Your task to perform on an android device: Toggle the flashlight Image 0: 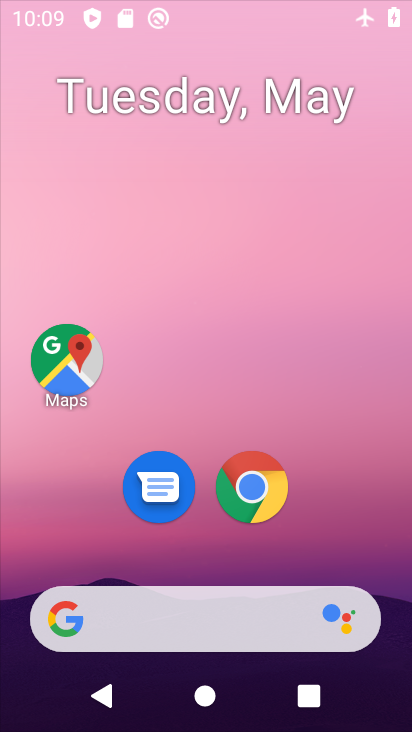
Step 0: click (211, 218)
Your task to perform on an android device: Toggle the flashlight Image 1: 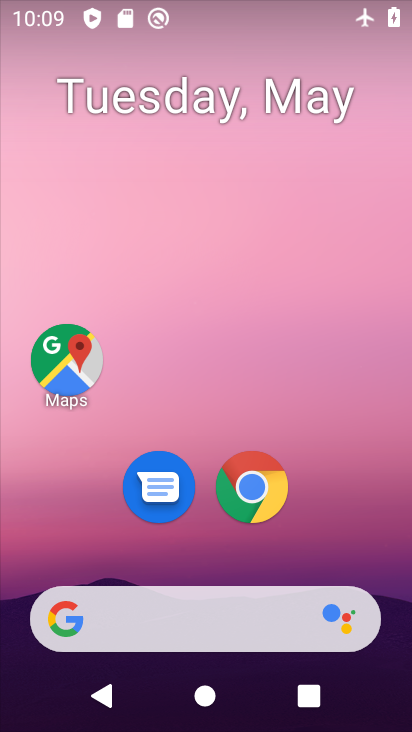
Step 1: drag from (239, 533) to (297, 149)
Your task to perform on an android device: Toggle the flashlight Image 2: 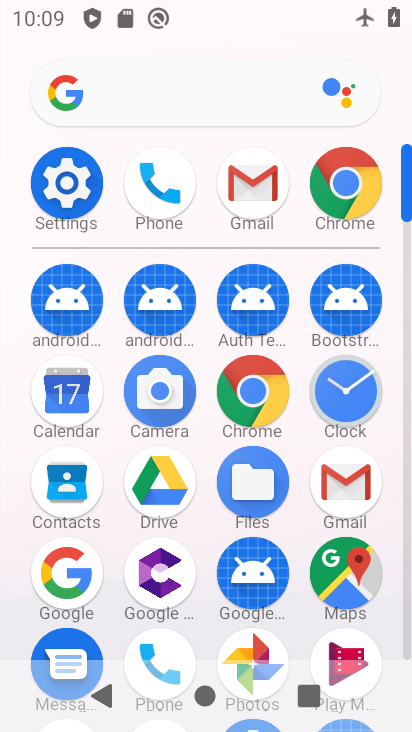
Step 2: click (63, 175)
Your task to perform on an android device: Toggle the flashlight Image 3: 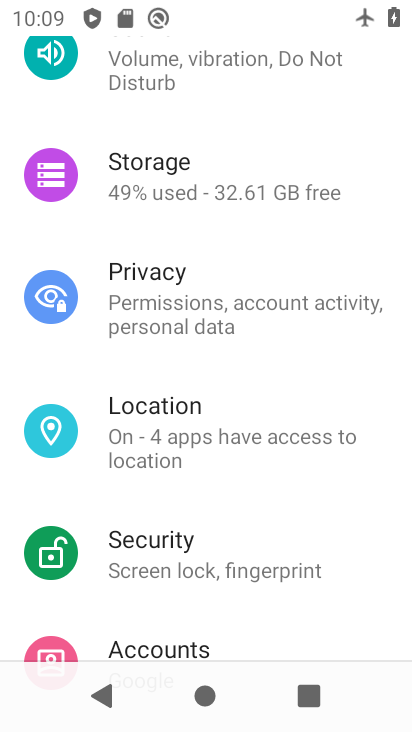
Step 3: drag from (232, 105) to (231, 603)
Your task to perform on an android device: Toggle the flashlight Image 4: 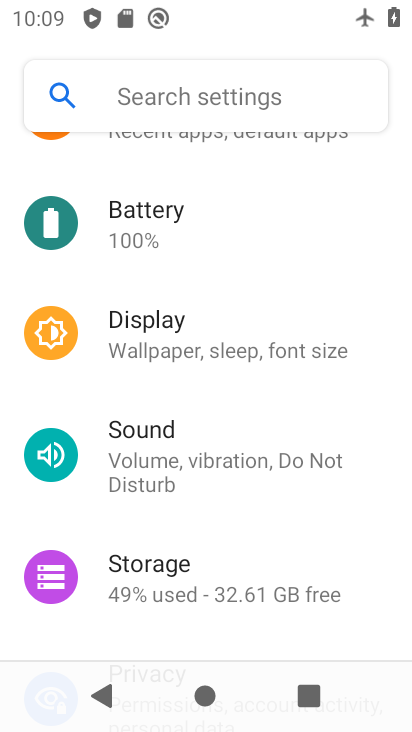
Step 4: click (219, 65)
Your task to perform on an android device: Toggle the flashlight Image 5: 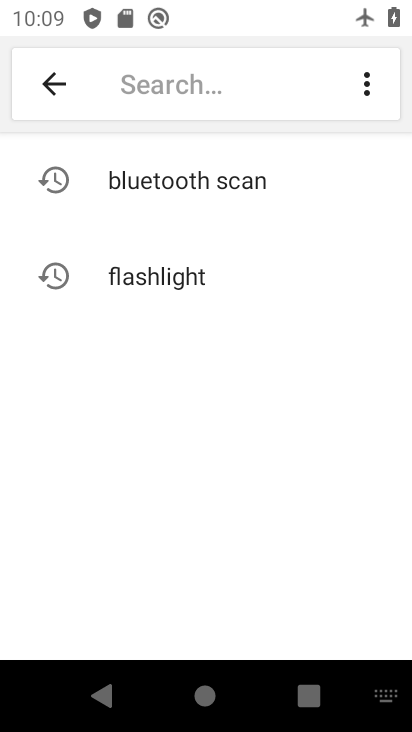
Step 5: click (168, 268)
Your task to perform on an android device: Toggle the flashlight Image 6: 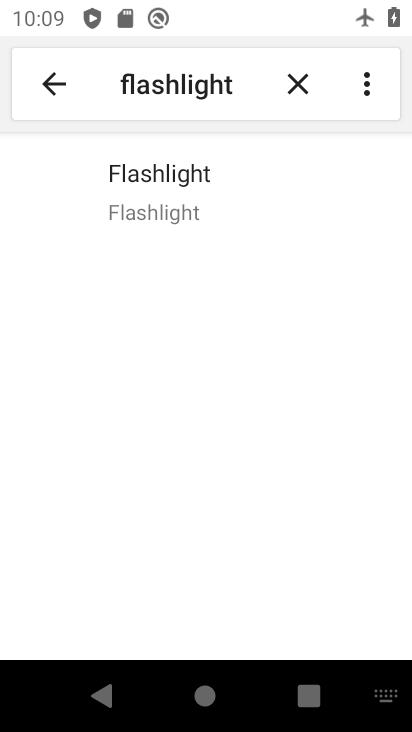
Step 6: task complete